Your task to perform on an android device: check android version Image 0: 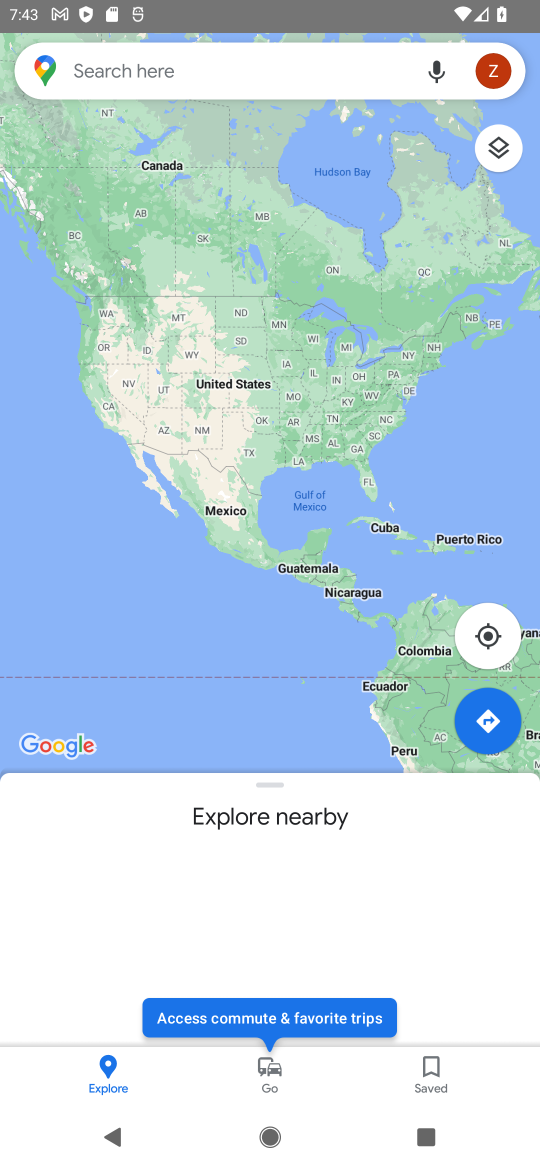
Step 0: press home button
Your task to perform on an android device: check android version Image 1: 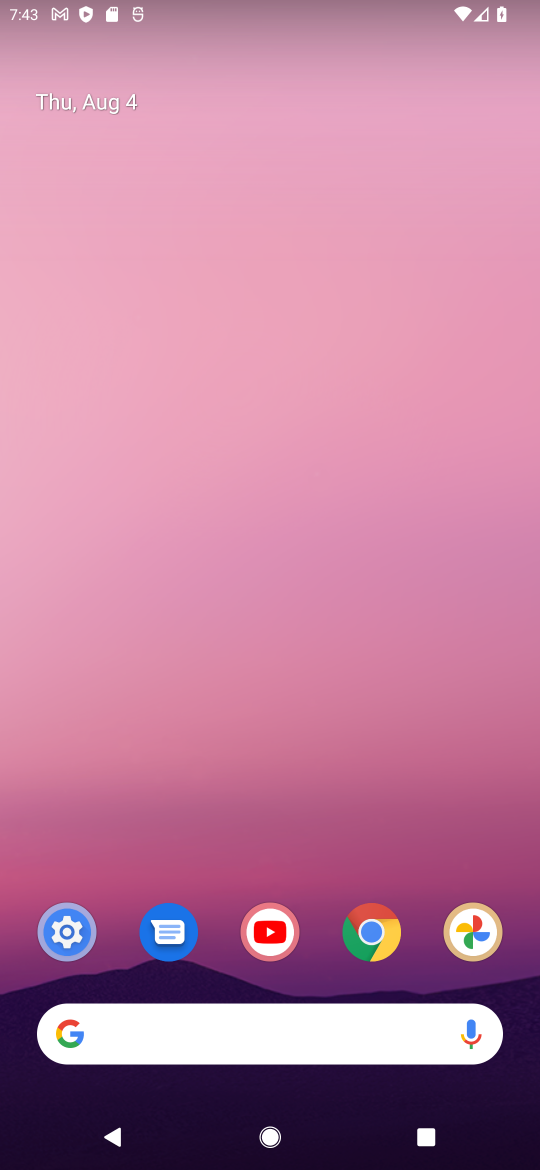
Step 1: click (73, 926)
Your task to perform on an android device: check android version Image 2: 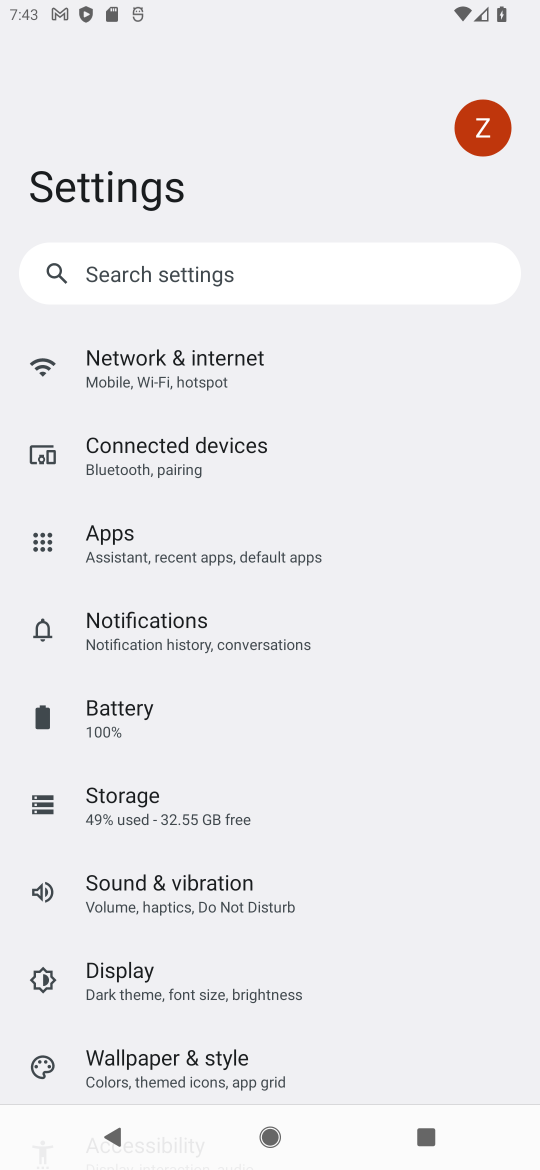
Step 2: drag from (214, 1016) to (148, 308)
Your task to perform on an android device: check android version Image 3: 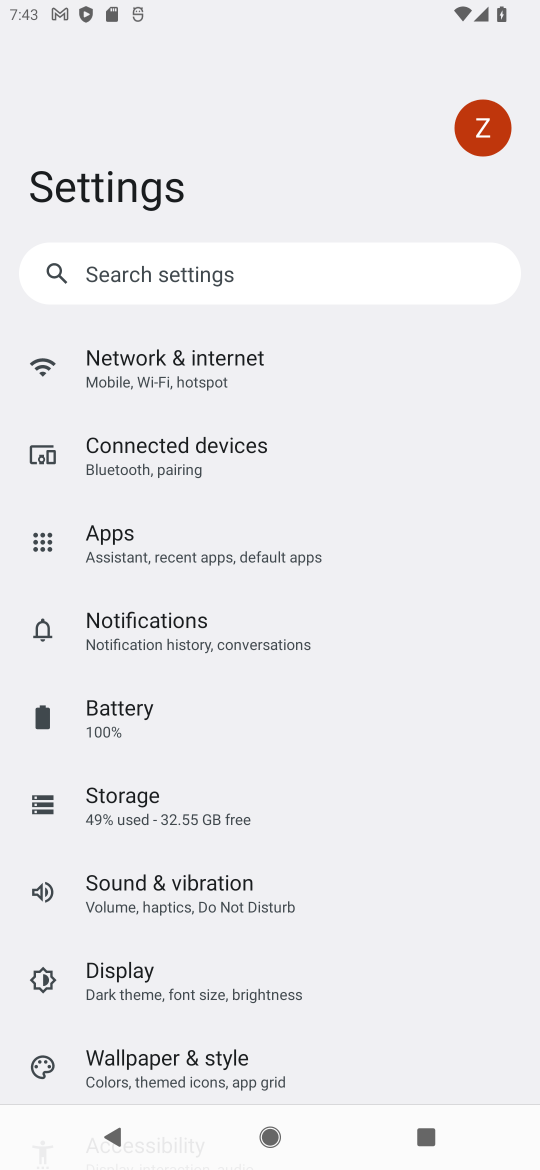
Step 3: drag from (220, 827) to (220, 77)
Your task to perform on an android device: check android version Image 4: 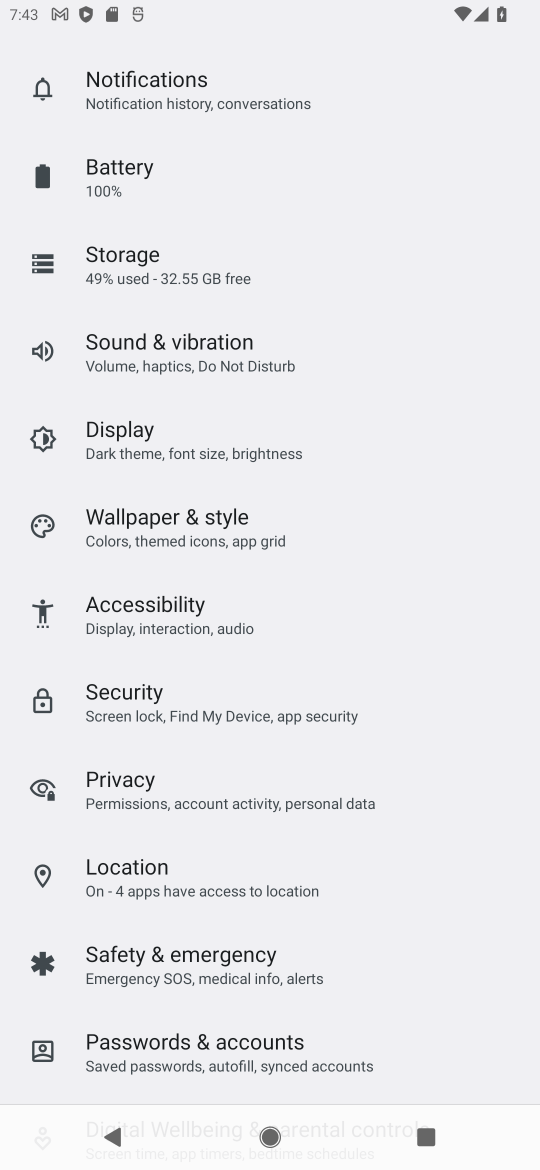
Step 4: drag from (249, 725) to (239, 20)
Your task to perform on an android device: check android version Image 5: 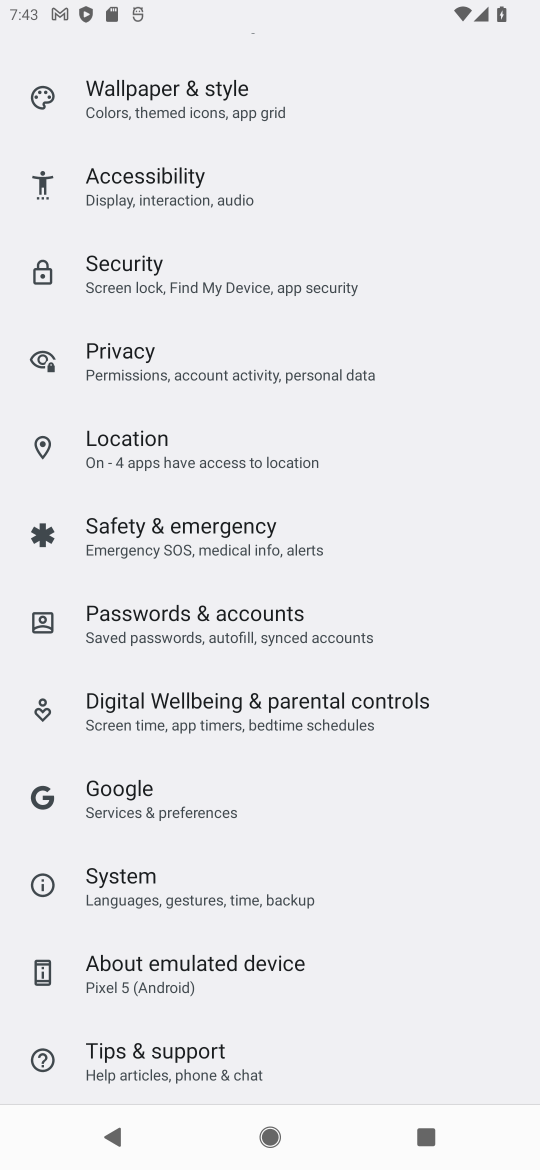
Step 5: drag from (294, 891) to (294, 308)
Your task to perform on an android device: check android version Image 6: 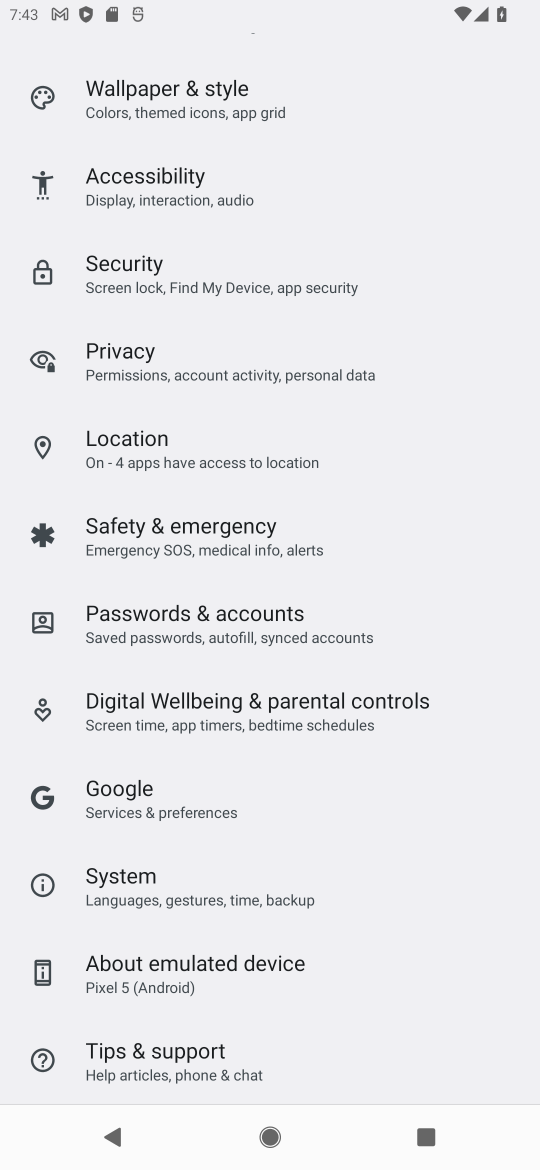
Step 6: drag from (234, 993) to (166, 560)
Your task to perform on an android device: check android version Image 7: 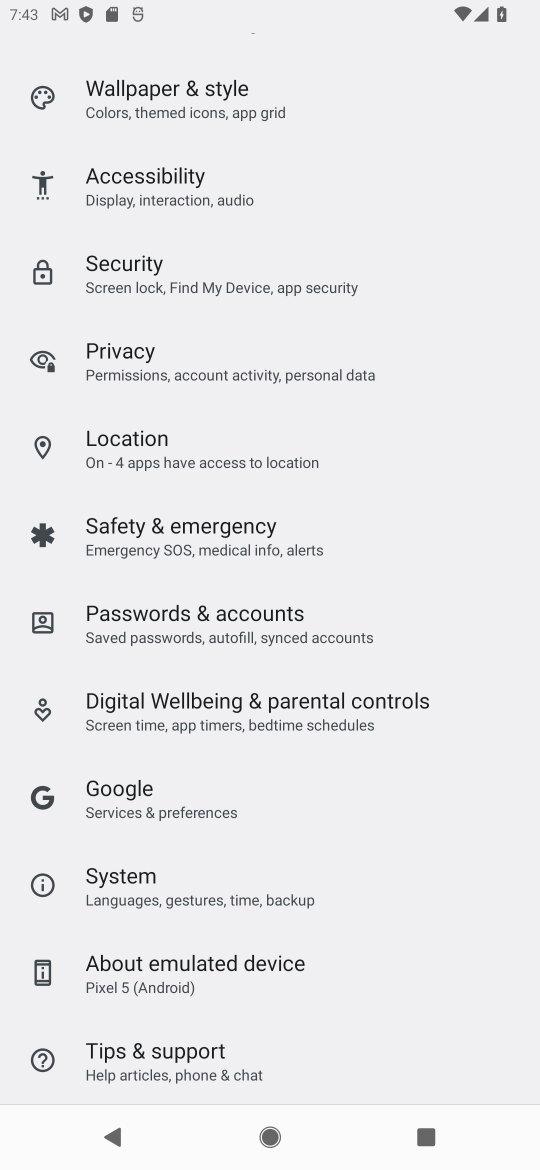
Step 7: click (268, 990)
Your task to perform on an android device: check android version Image 8: 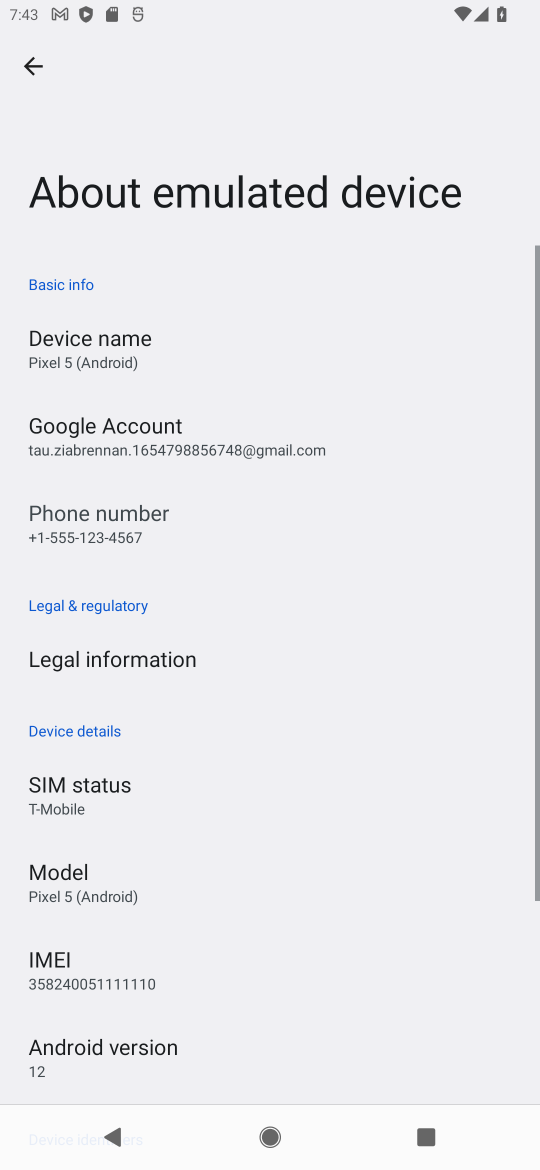
Step 8: click (176, 1057)
Your task to perform on an android device: check android version Image 9: 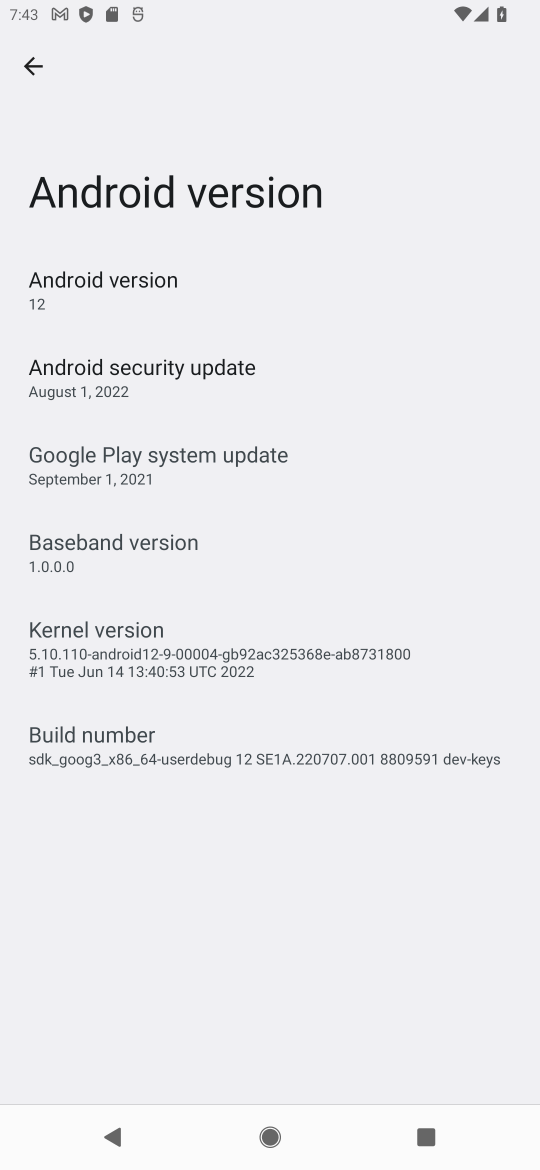
Step 9: click (60, 290)
Your task to perform on an android device: check android version Image 10: 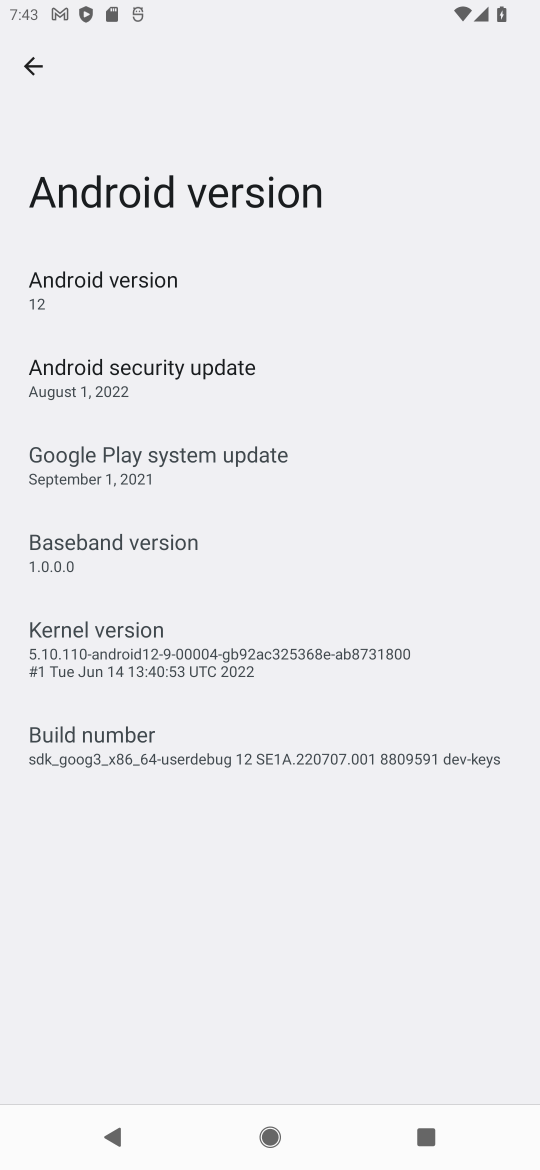
Step 10: task complete